Your task to perform on an android device: Open Chrome and go to the settings page Image 0: 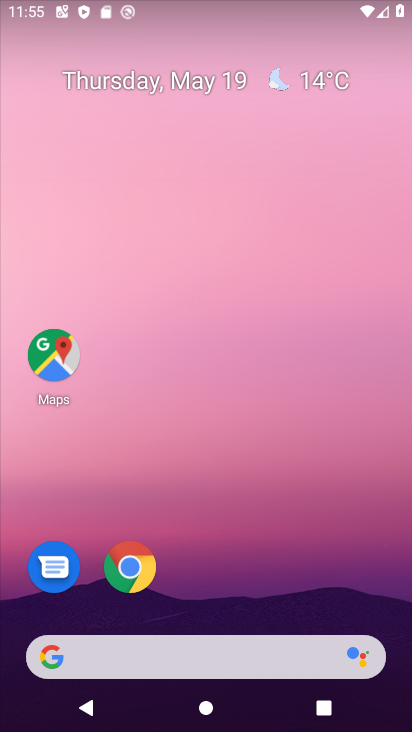
Step 0: drag from (348, 534) to (411, 28)
Your task to perform on an android device: Open Chrome and go to the settings page Image 1: 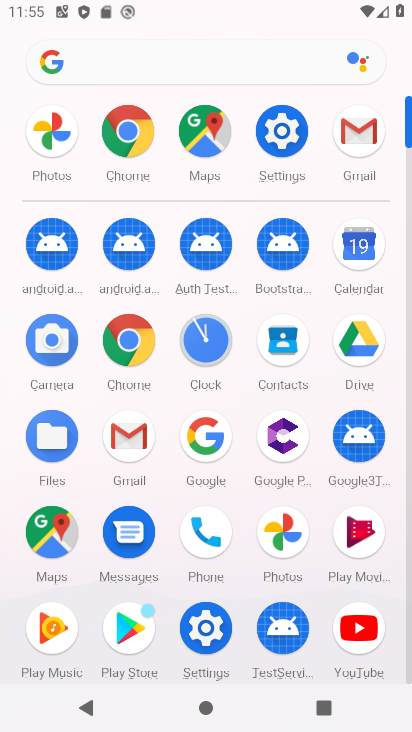
Step 1: click (267, 144)
Your task to perform on an android device: Open Chrome and go to the settings page Image 2: 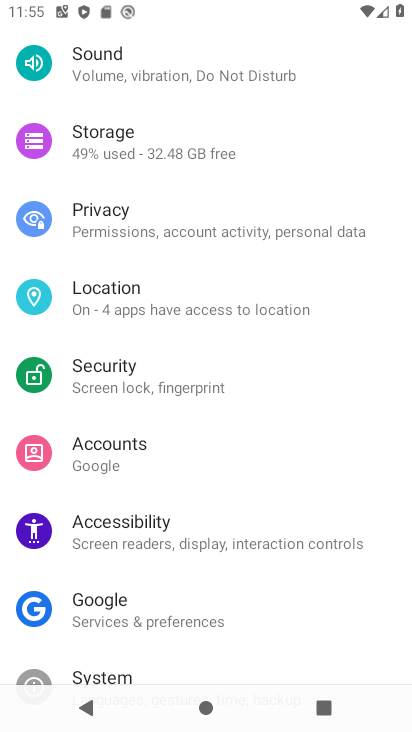
Step 2: drag from (265, 140) to (229, 619)
Your task to perform on an android device: Open Chrome and go to the settings page Image 3: 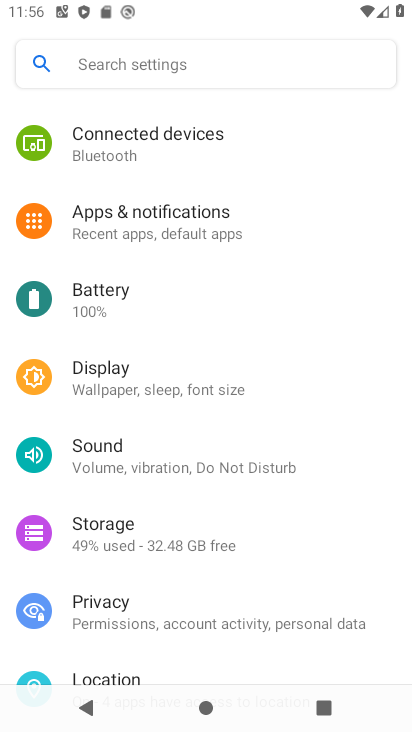
Step 3: press home button
Your task to perform on an android device: Open Chrome and go to the settings page Image 4: 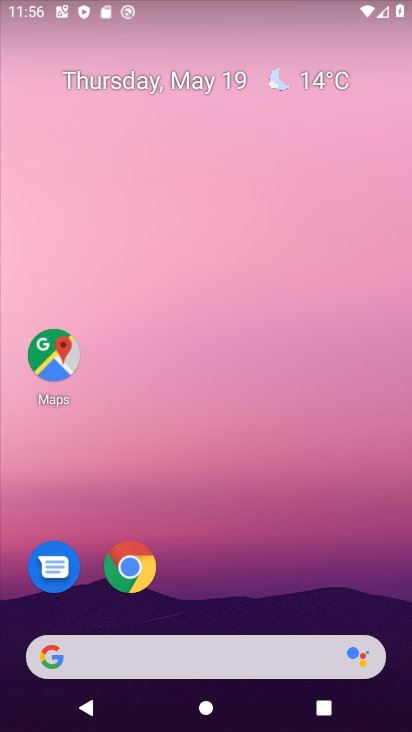
Step 4: click (158, 563)
Your task to perform on an android device: Open Chrome and go to the settings page Image 5: 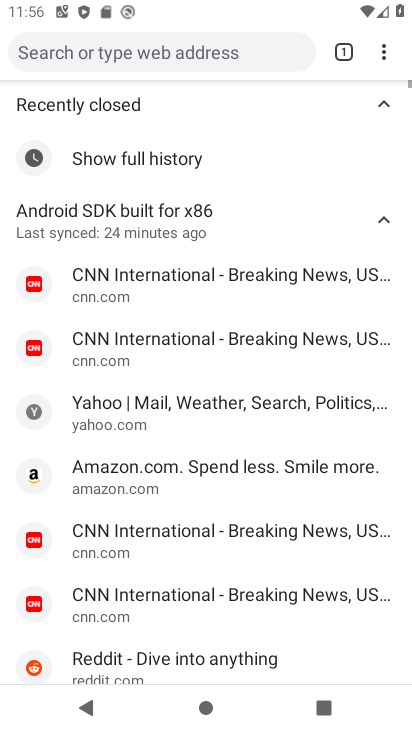
Step 5: task complete